Your task to perform on an android device: What's on my calendar today? Image 0: 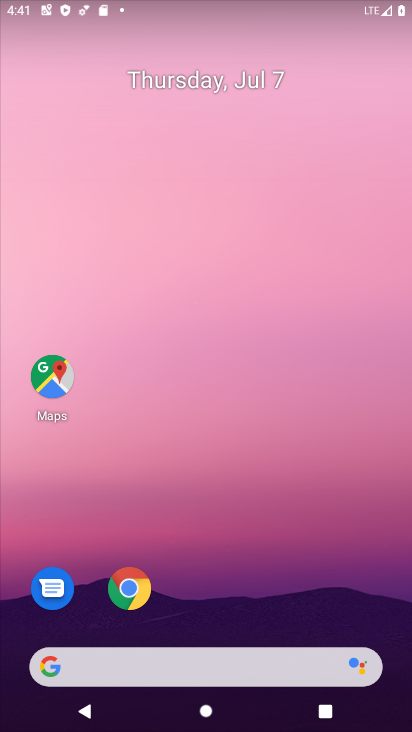
Step 0: drag from (182, 403) to (218, 190)
Your task to perform on an android device: What's on my calendar today? Image 1: 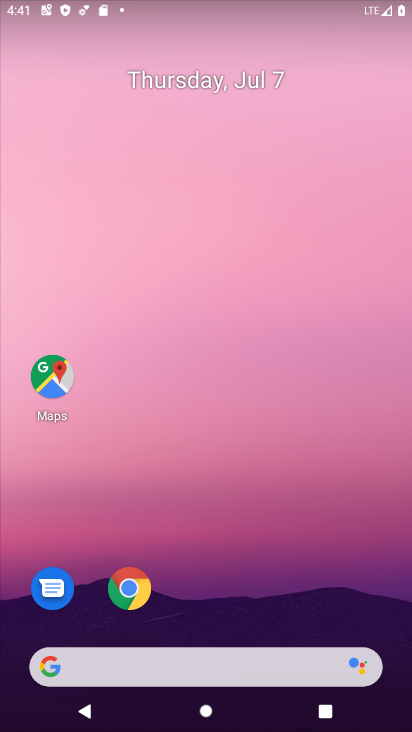
Step 1: drag from (294, 655) to (316, 108)
Your task to perform on an android device: What's on my calendar today? Image 2: 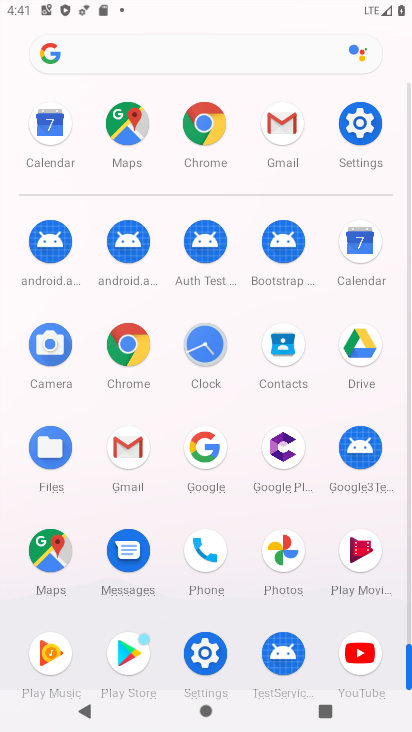
Step 2: click (363, 258)
Your task to perform on an android device: What's on my calendar today? Image 3: 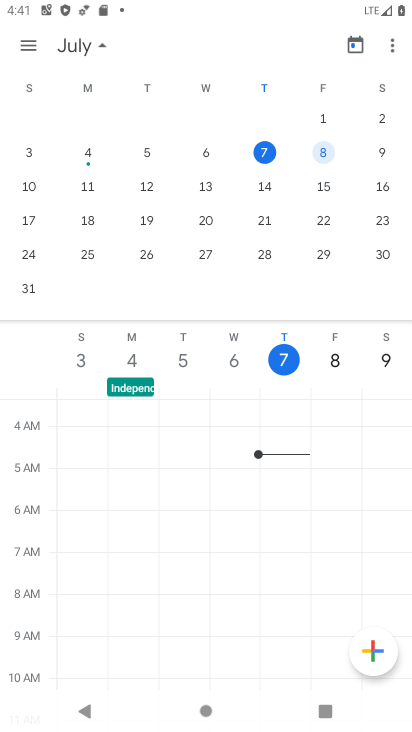
Step 3: click (271, 149)
Your task to perform on an android device: What's on my calendar today? Image 4: 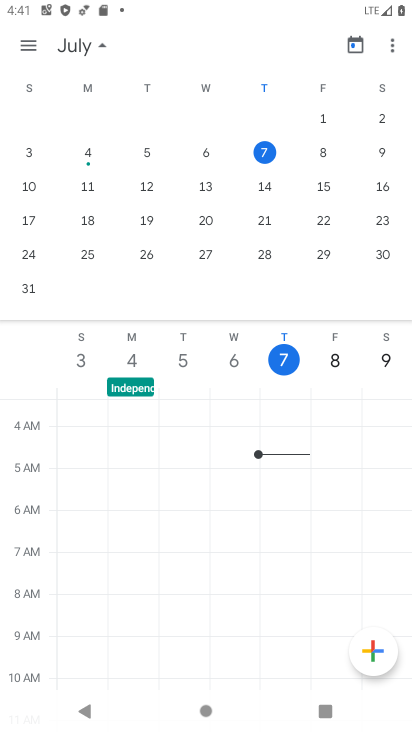
Step 4: click (289, 353)
Your task to perform on an android device: What's on my calendar today? Image 5: 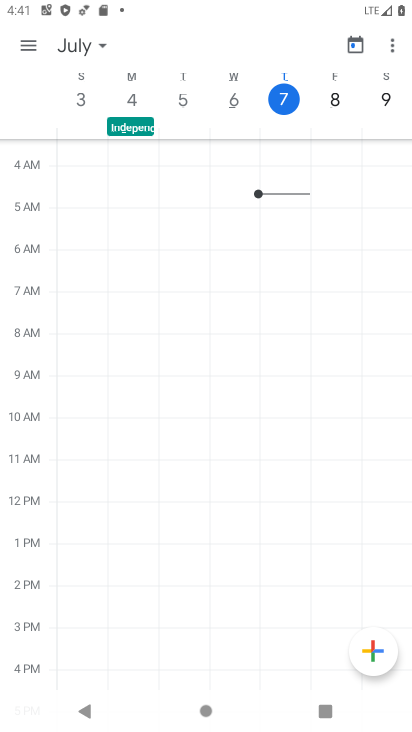
Step 5: task complete